Your task to perform on an android device: install app "Google Duo" Image 0: 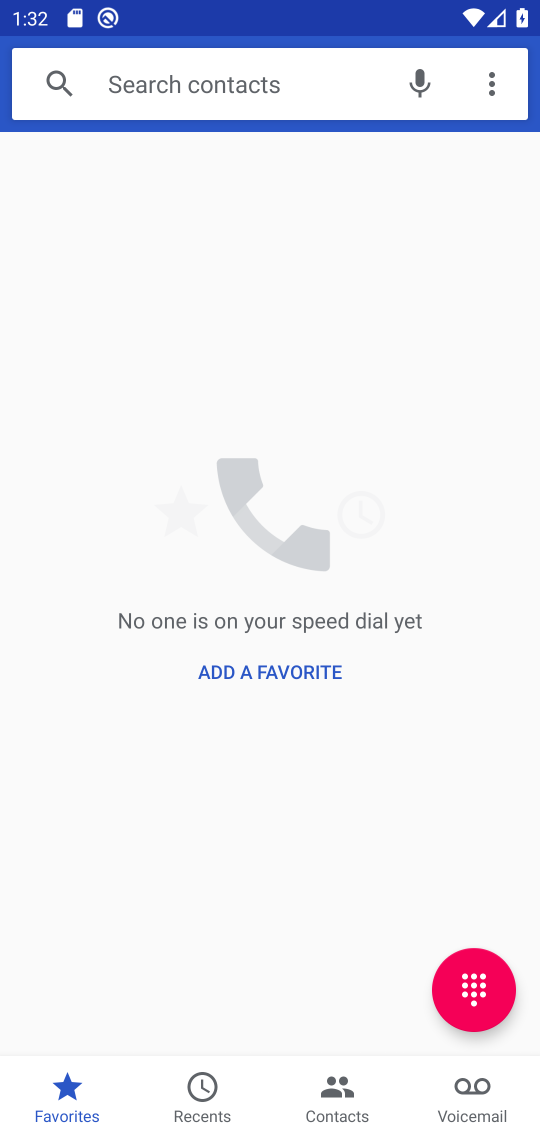
Step 0: press home button
Your task to perform on an android device: install app "Google Duo" Image 1: 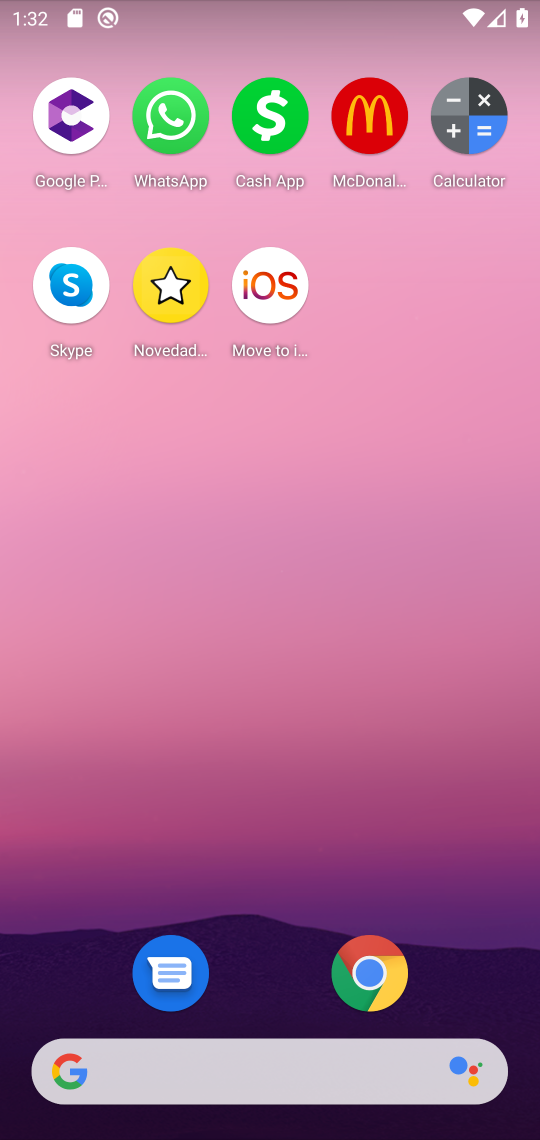
Step 1: drag from (223, 1014) to (299, 123)
Your task to perform on an android device: install app "Google Duo" Image 2: 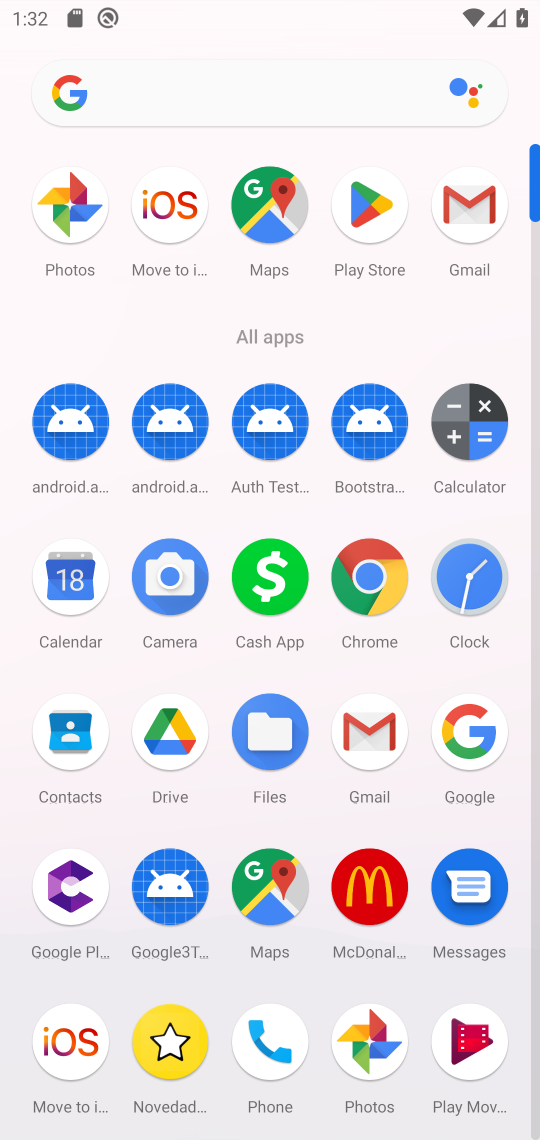
Step 2: click (374, 195)
Your task to perform on an android device: install app "Google Duo" Image 3: 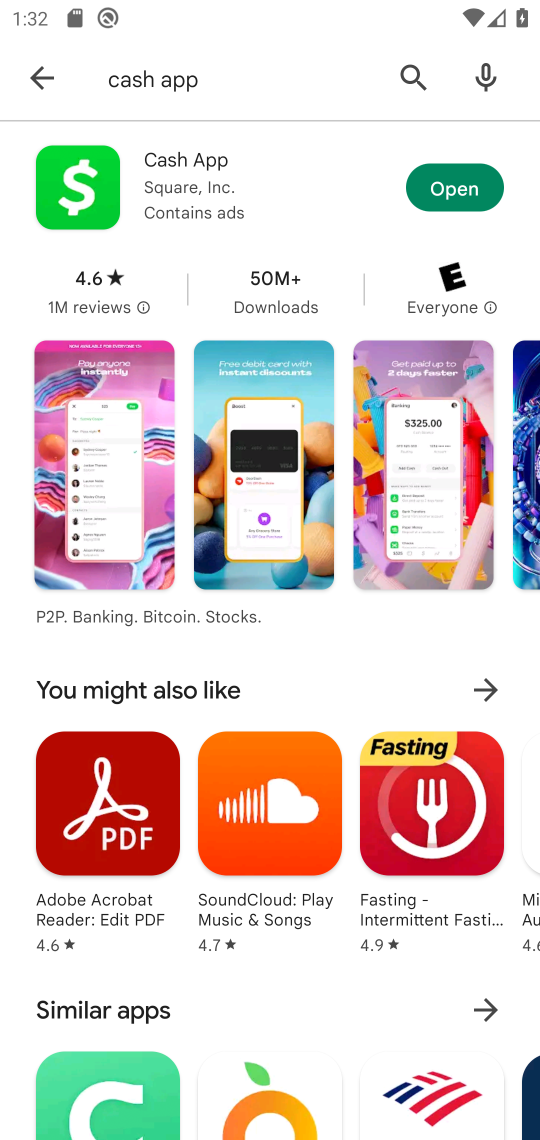
Step 3: click (396, 83)
Your task to perform on an android device: install app "Google Duo" Image 4: 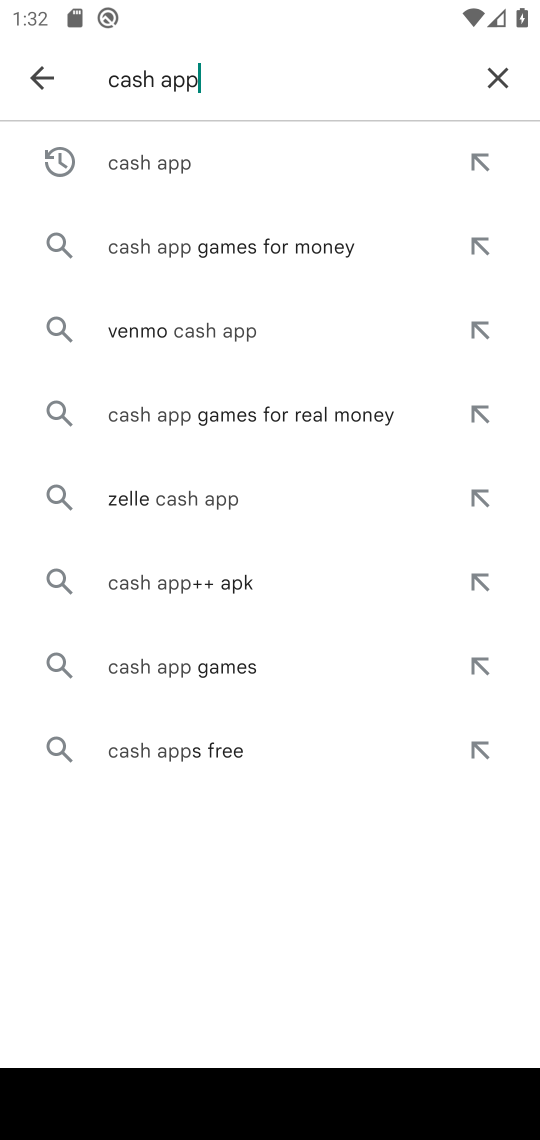
Step 4: click (505, 76)
Your task to perform on an android device: install app "Google Duo" Image 5: 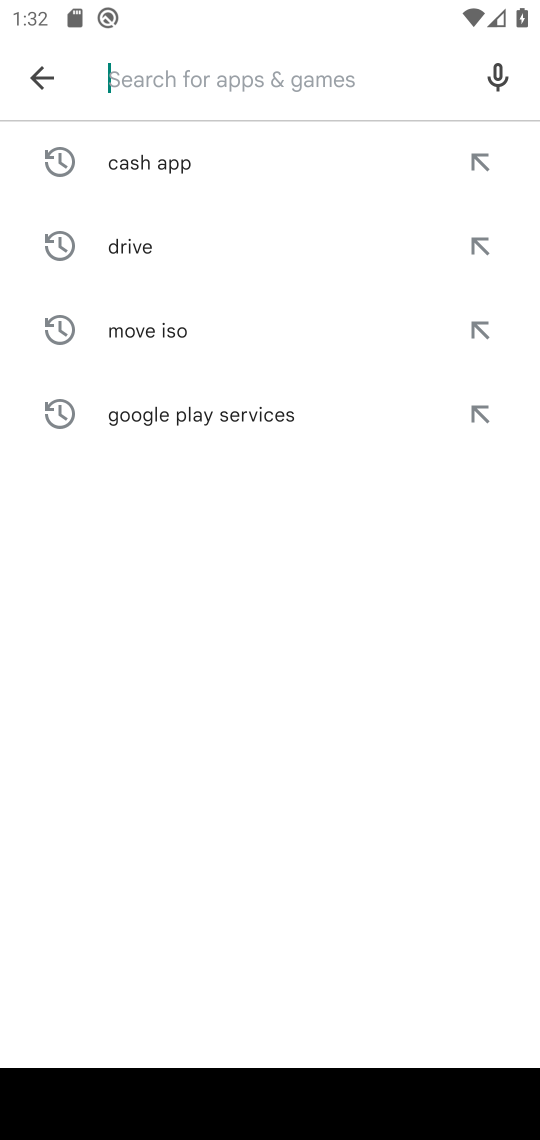
Step 5: type "duo"
Your task to perform on an android device: install app "Google Duo" Image 6: 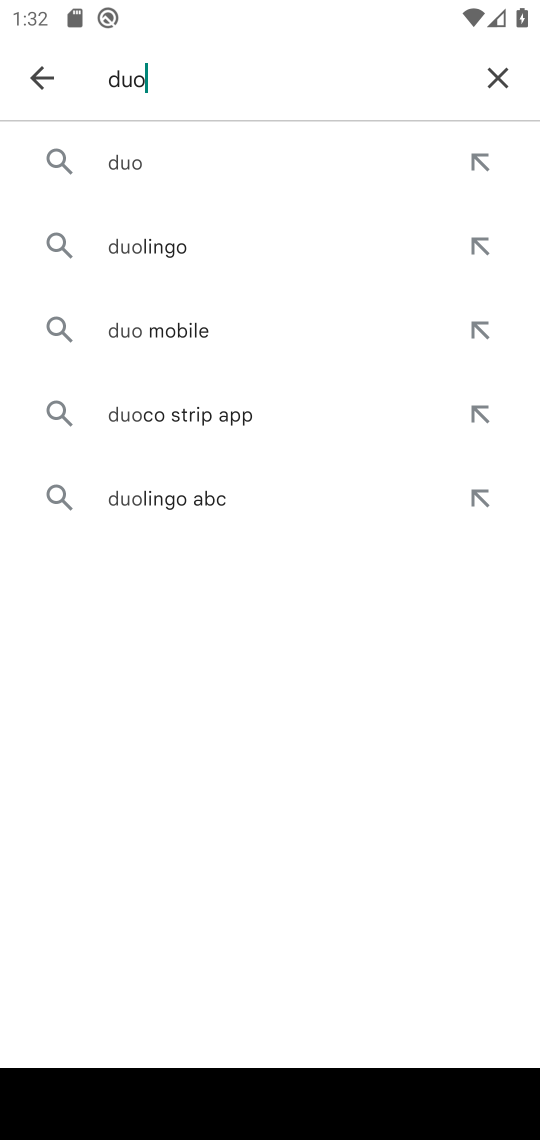
Step 6: click (135, 151)
Your task to perform on an android device: install app "Google Duo" Image 7: 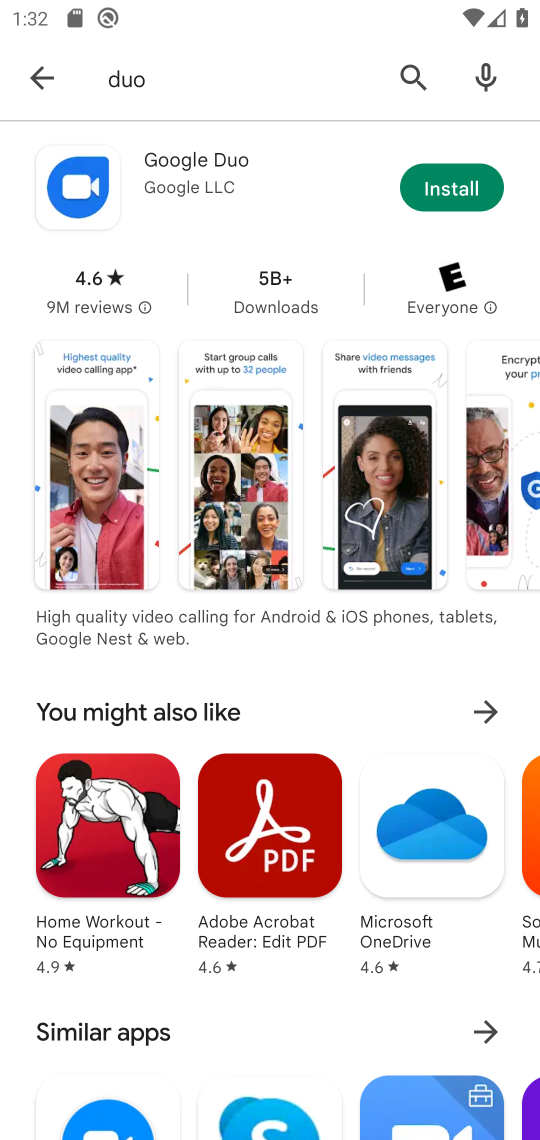
Step 7: click (432, 190)
Your task to perform on an android device: install app "Google Duo" Image 8: 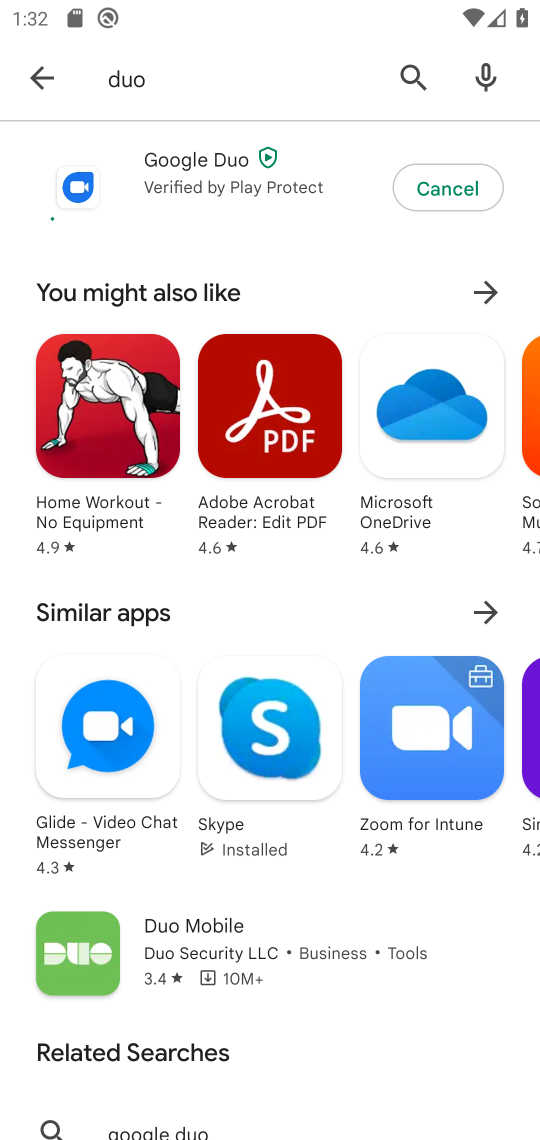
Step 8: task complete